Your task to perform on an android device: Clear the cart on target. Image 0: 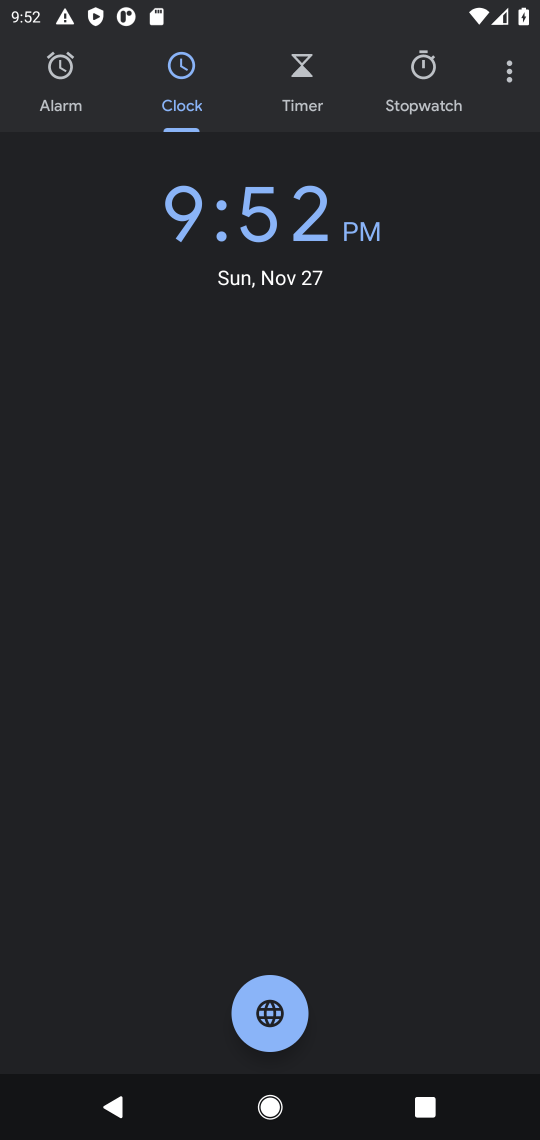
Step 0: press home button
Your task to perform on an android device: Clear the cart on target. Image 1: 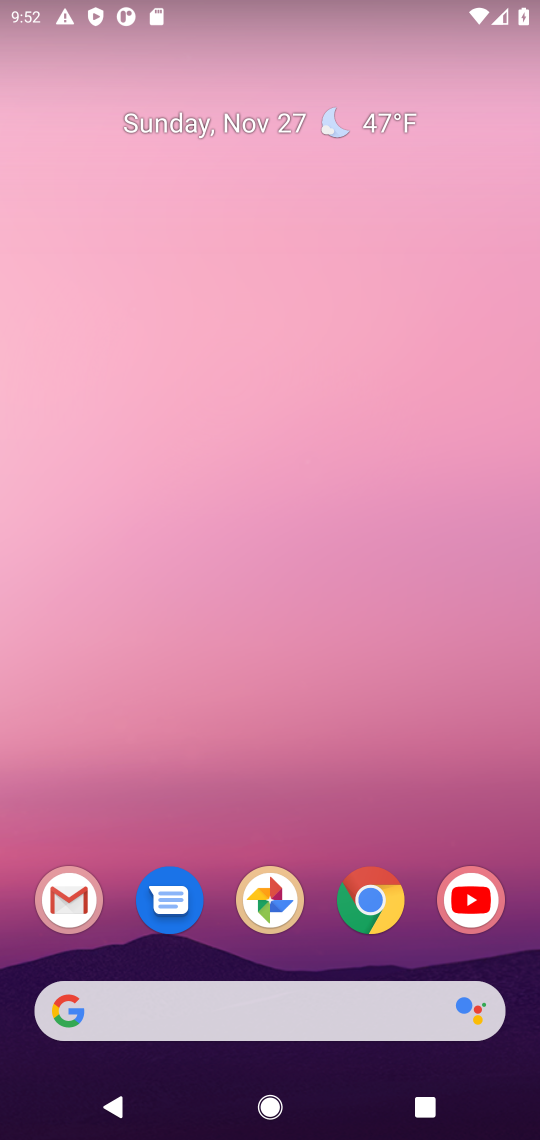
Step 1: click (374, 910)
Your task to perform on an android device: Clear the cart on target. Image 2: 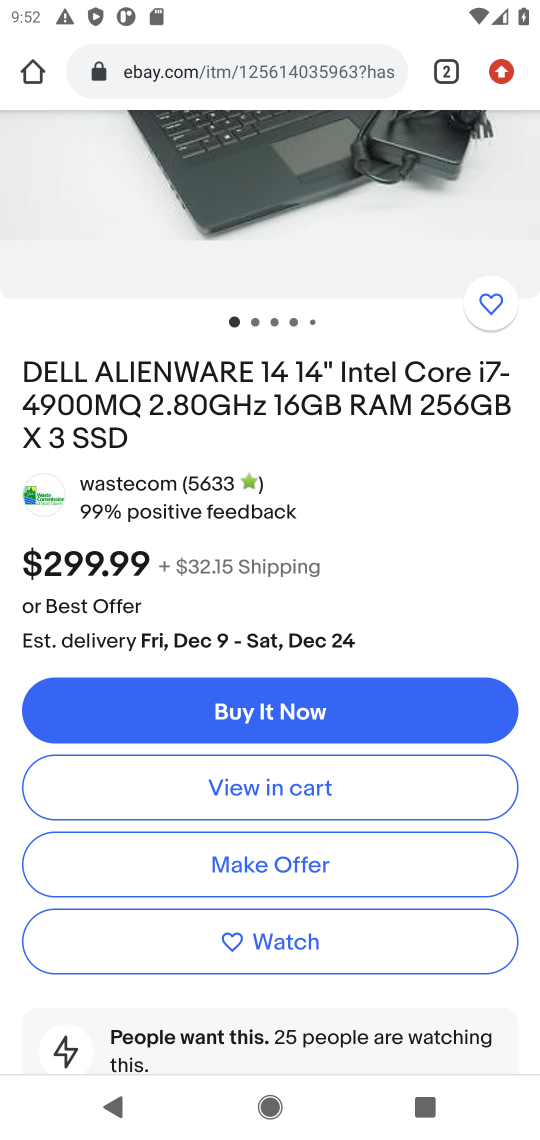
Step 2: drag from (400, 296) to (391, 558)
Your task to perform on an android device: Clear the cart on target. Image 3: 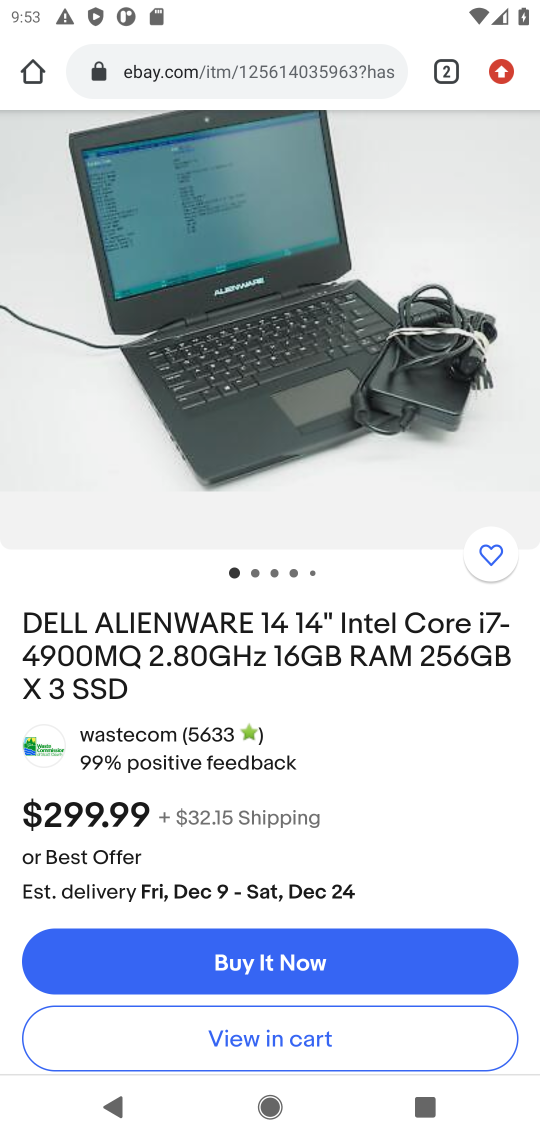
Step 3: drag from (316, 262) to (316, 603)
Your task to perform on an android device: Clear the cart on target. Image 4: 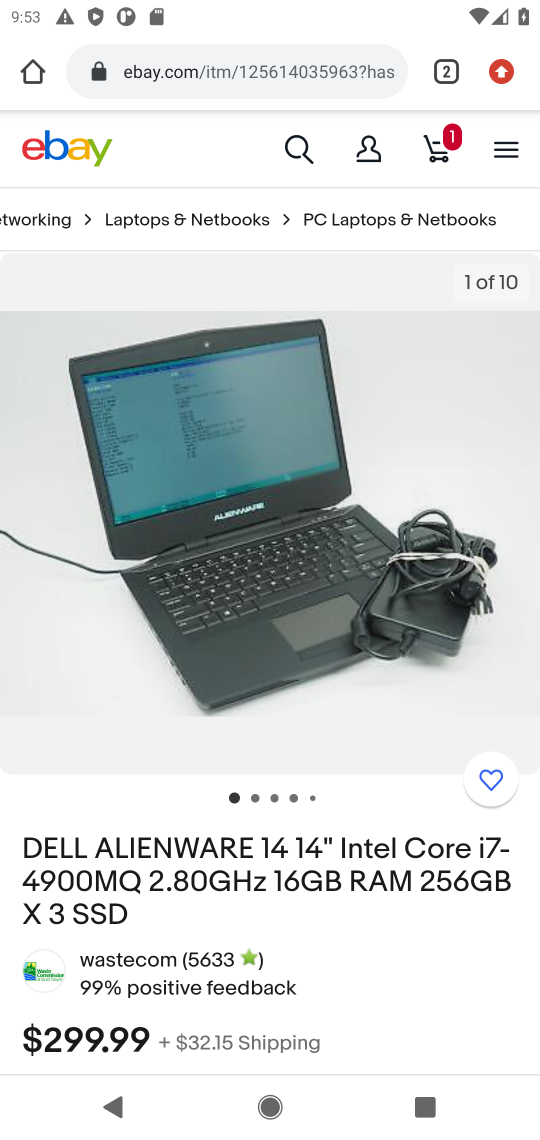
Step 4: click (308, 149)
Your task to perform on an android device: Clear the cart on target. Image 5: 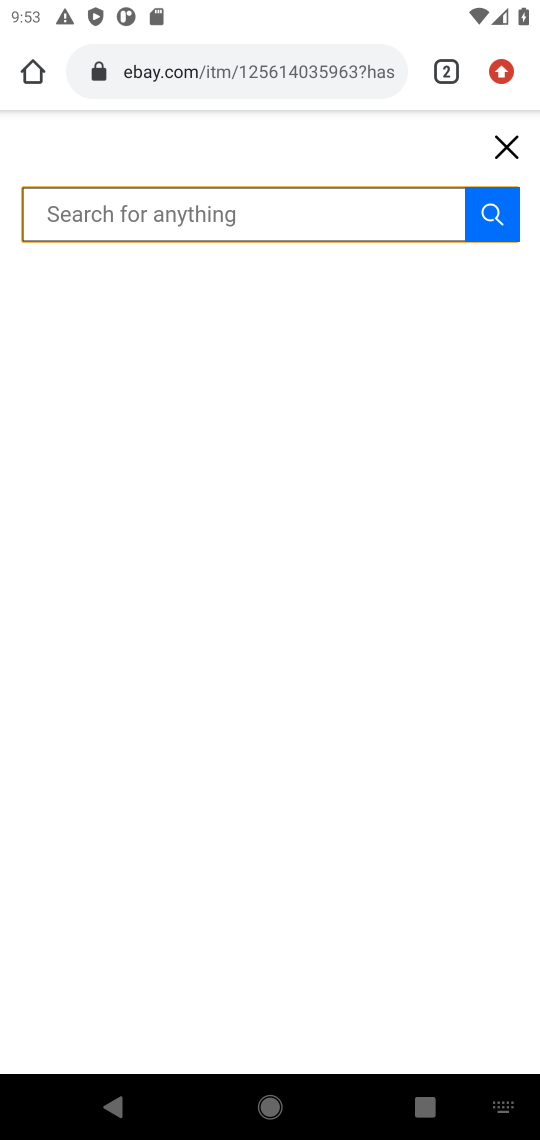
Step 5: click (487, 152)
Your task to perform on an android device: Clear the cart on target. Image 6: 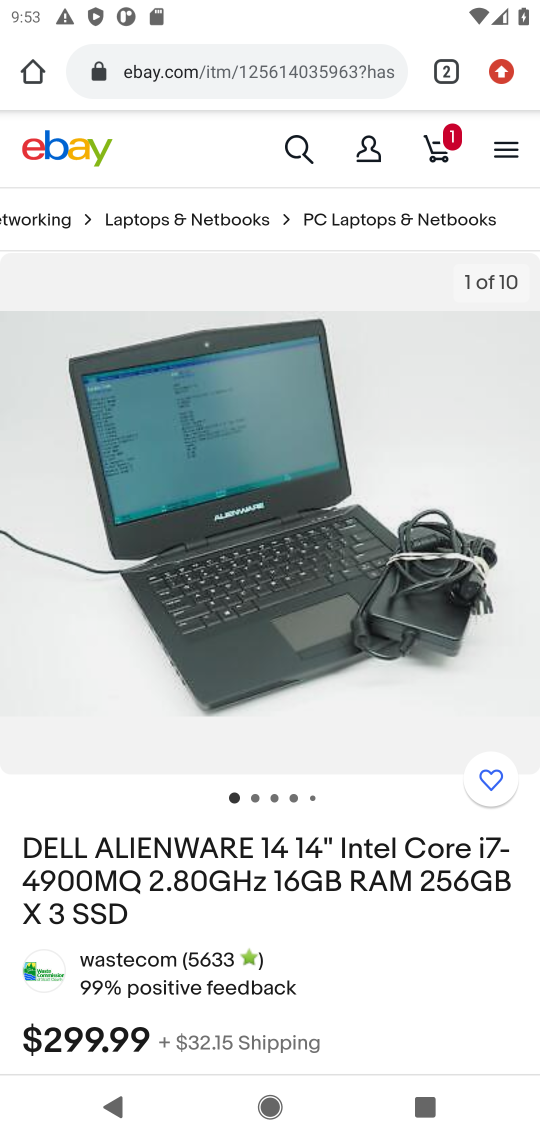
Step 6: click (455, 136)
Your task to perform on an android device: Clear the cart on target. Image 7: 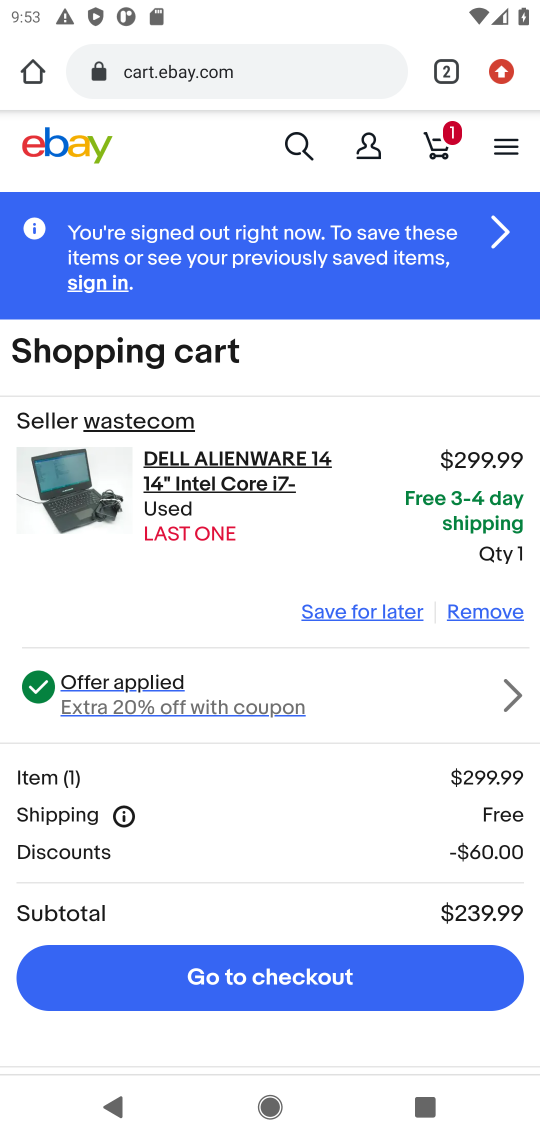
Step 7: click (479, 619)
Your task to perform on an android device: Clear the cart on target. Image 8: 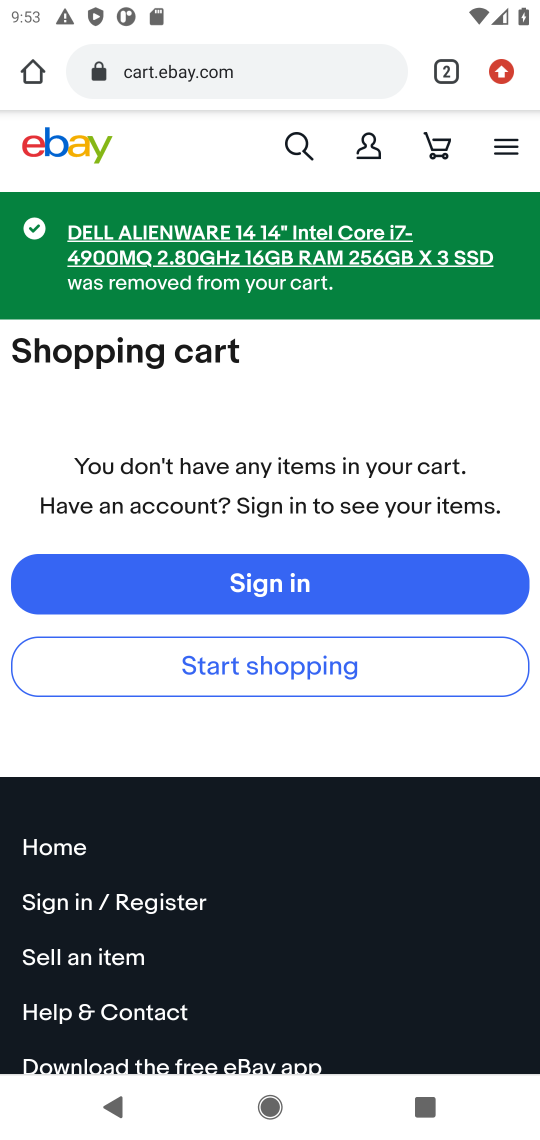
Step 8: task complete